Your task to perform on an android device: Open Google Chrome Image 0: 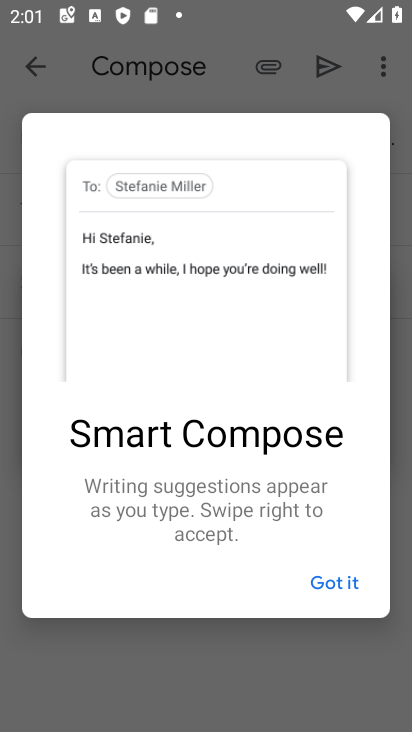
Step 0: press home button
Your task to perform on an android device: Open Google Chrome Image 1: 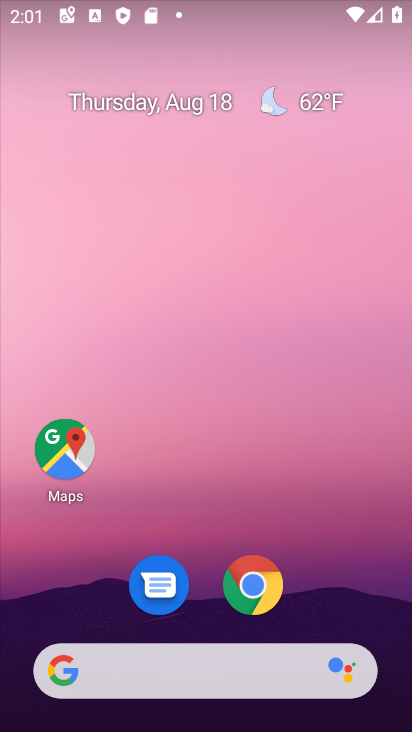
Step 1: click (249, 582)
Your task to perform on an android device: Open Google Chrome Image 2: 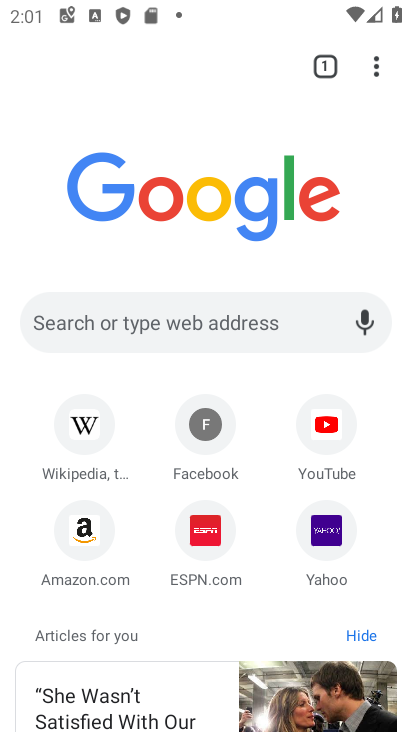
Step 2: task complete